Your task to perform on an android device: Open Android settings Image 0: 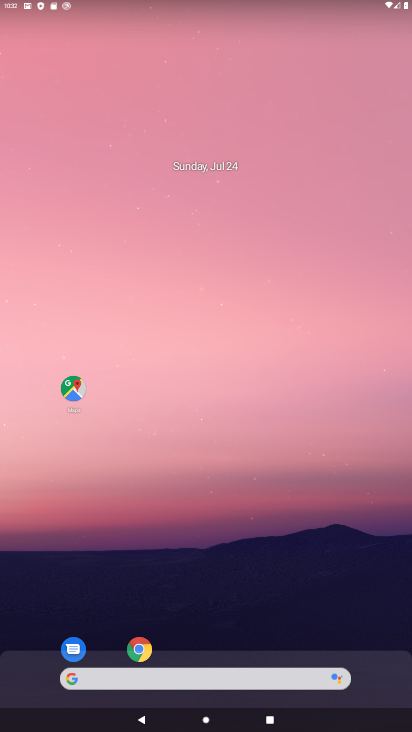
Step 0: drag from (268, 614) to (259, 31)
Your task to perform on an android device: Open Android settings Image 1: 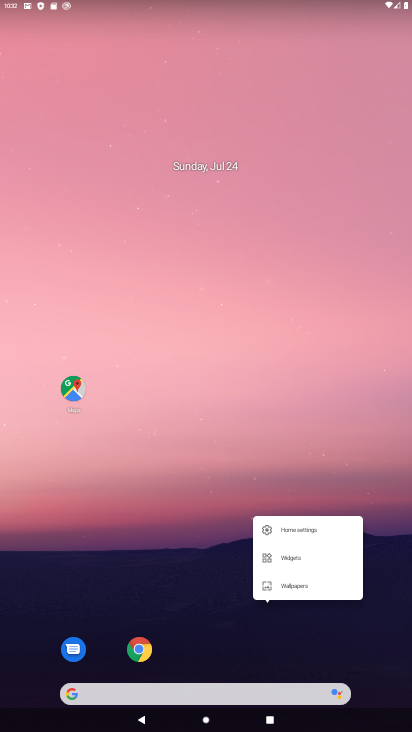
Step 1: click (244, 478)
Your task to perform on an android device: Open Android settings Image 2: 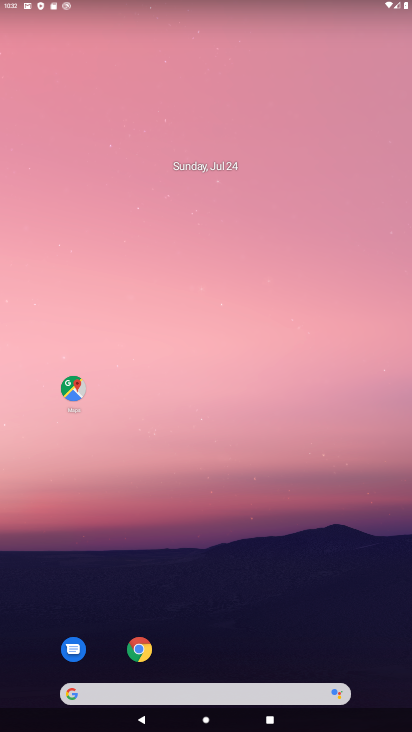
Step 2: drag from (241, 667) to (324, 172)
Your task to perform on an android device: Open Android settings Image 3: 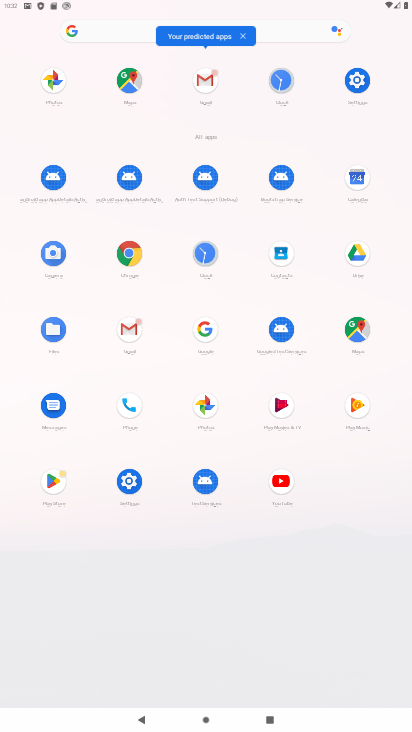
Step 3: click (357, 83)
Your task to perform on an android device: Open Android settings Image 4: 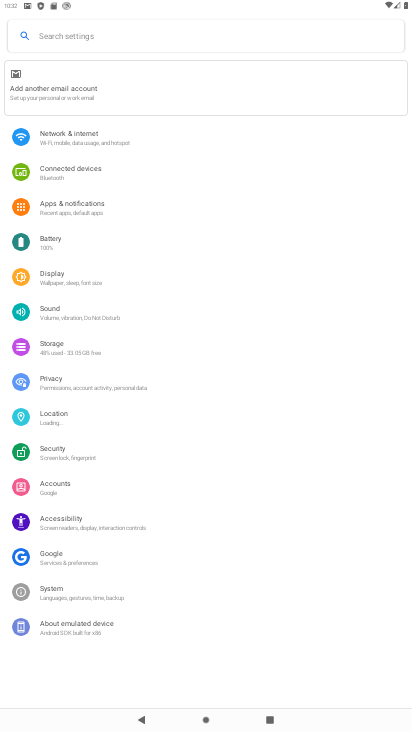
Step 4: click (100, 594)
Your task to perform on an android device: Open Android settings Image 5: 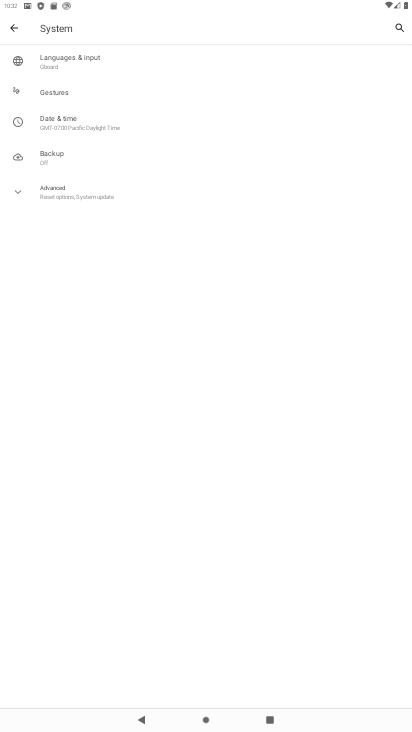
Step 5: task complete